Your task to perform on an android device: Go to accessibility settings Image 0: 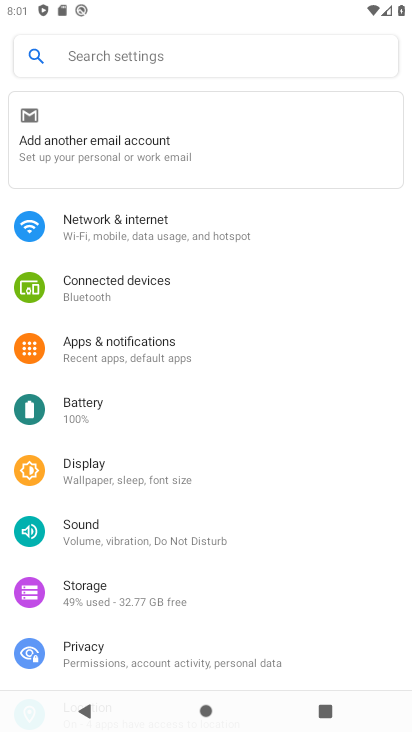
Step 0: press home button
Your task to perform on an android device: Go to accessibility settings Image 1: 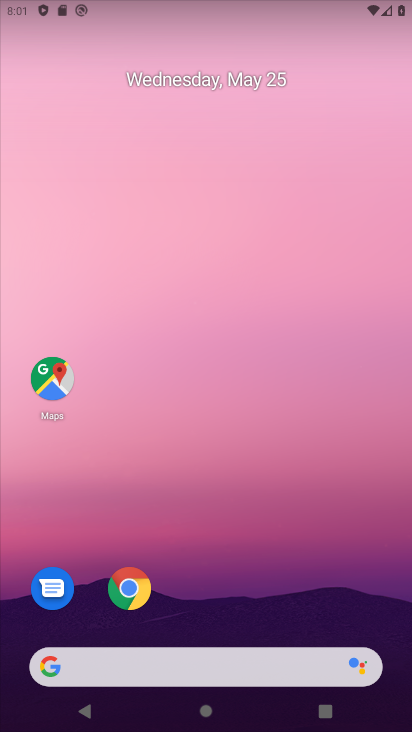
Step 1: drag from (72, 387) to (210, 137)
Your task to perform on an android device: Go to accessibility settings Image 2: 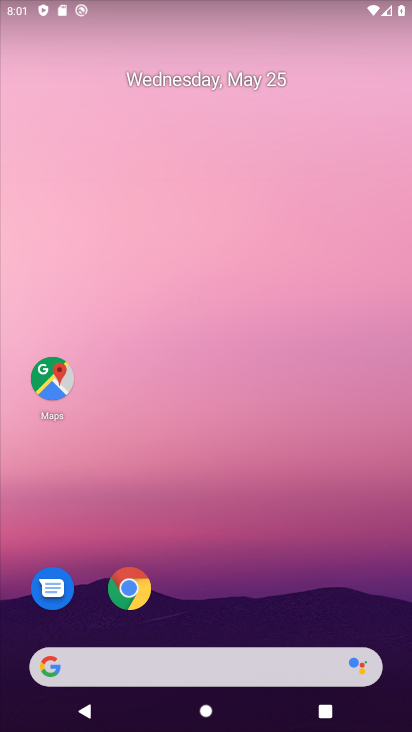
Step 2: drag from (60, 543) to (272, 138)
Your task to perform on an android device: Go to accessibility settings Image 3: 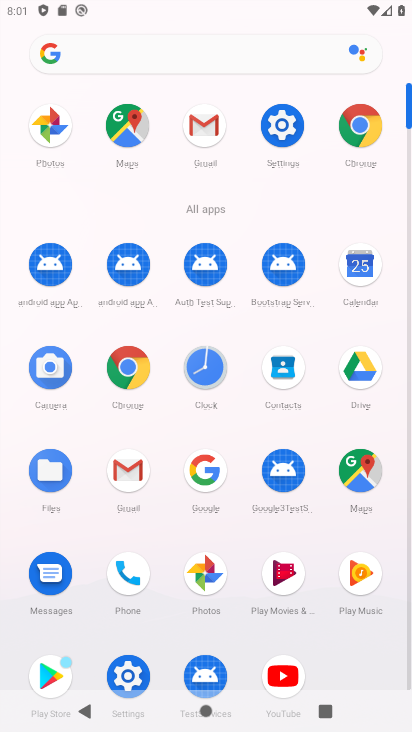
Step 3: click (285, 122)
Your task to perform on an android device: Go to accessibility settings Image 4: 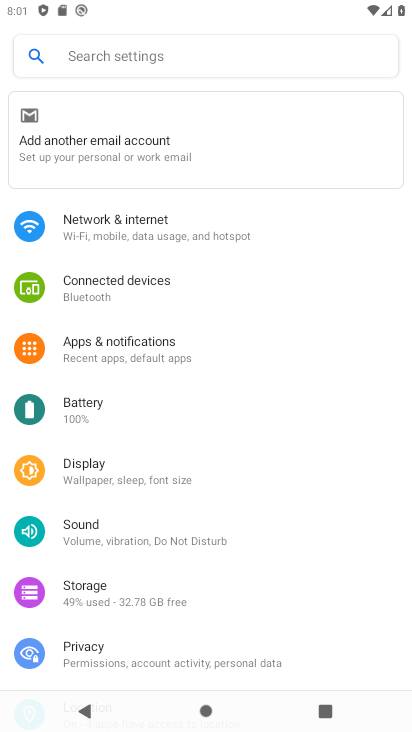
Step 4: drag from (8, 534) to (227, 159)
Your task to perform on an android device: Go to accessibility settings Image 5: 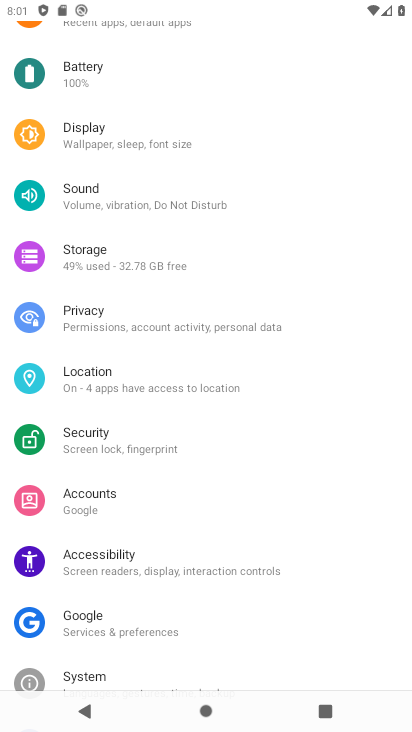
Step 5: click (125, 559)
Your task to perform on an android device: Go to accessibility settings Image 6: 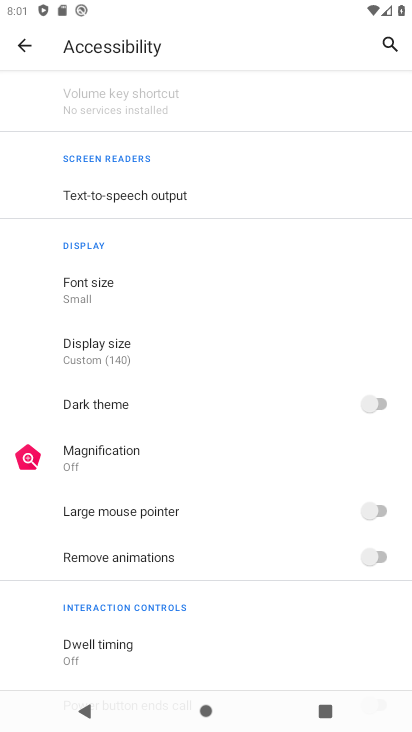
Step 6: task complete